Your task to perform on an android device: Go to Reddit.com Image 0: 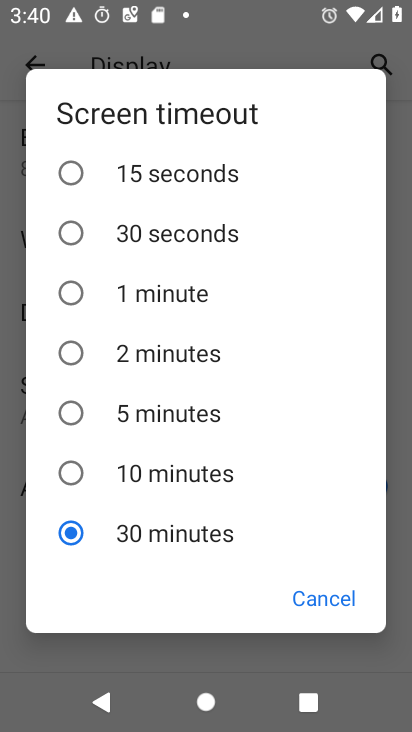
Step 0: press home button
Your task to perform on an android device: Go to Reddit.com Image 1: 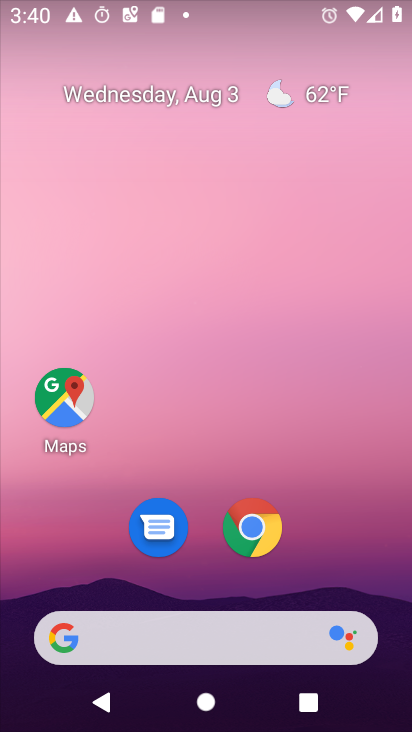
Step 1: drag from (360, 544) to (337, 135)
Your task to perform on an android device: Go to Reddit.com Image 2: 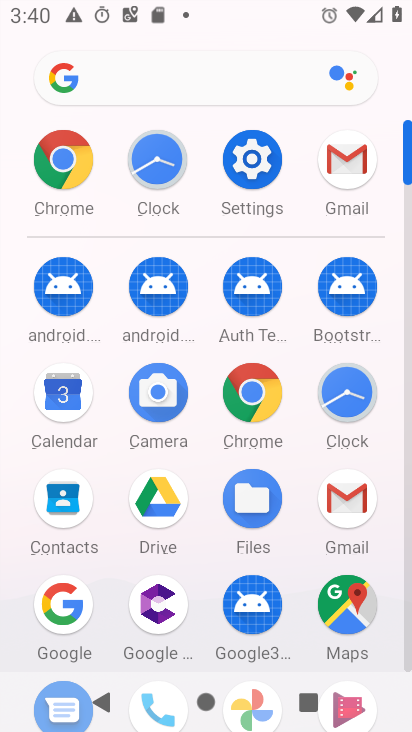
Step 2: click (247, 386)
Your task to perform on an android device: Go to Reddit.com Image 3: 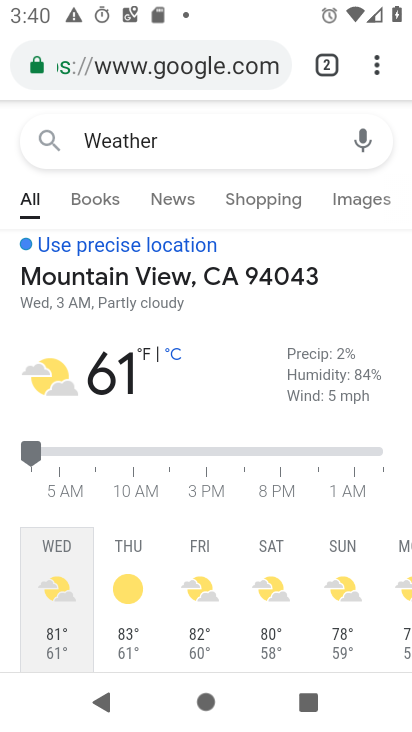
Step 3: click (240, 69)
Your task to perform on an android device: Go to Reddit.com Image 4: 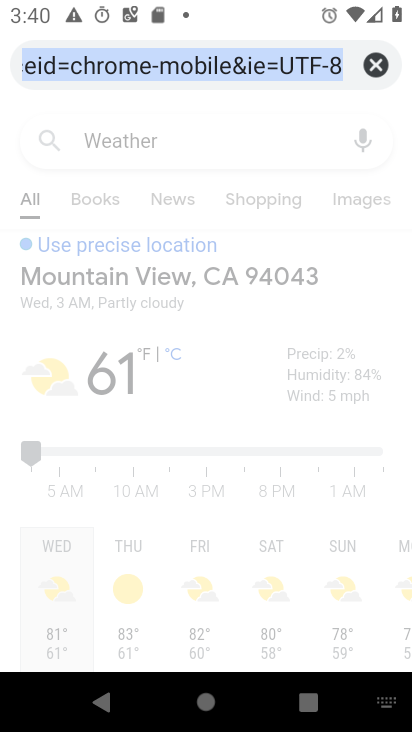
Step 4: type "reddit.com"
Your task to perform on an android device: Go to Reddit.com Image 5: 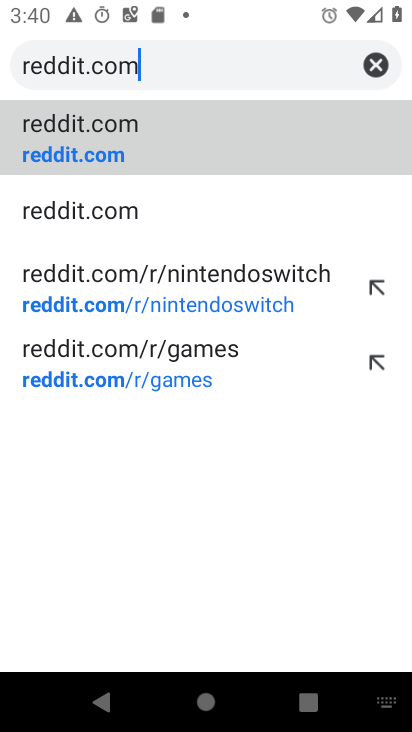
Step 5: click (87, 156)
Your task to perform on an android device: Go to Reddit.com Image 6: 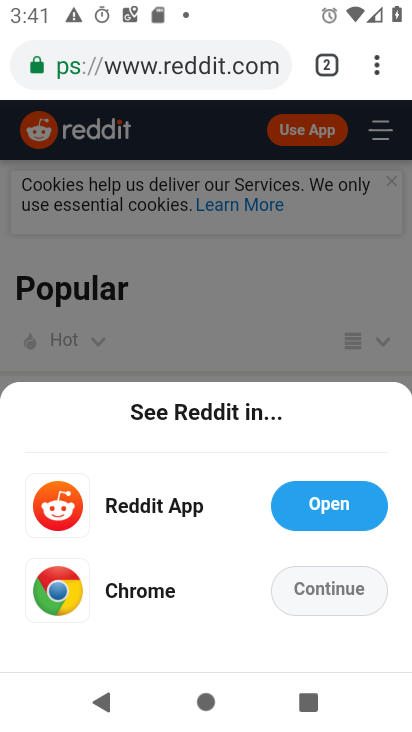
Step 6: task complete